Your task to perform on an android device: turn off wifi Image 0: 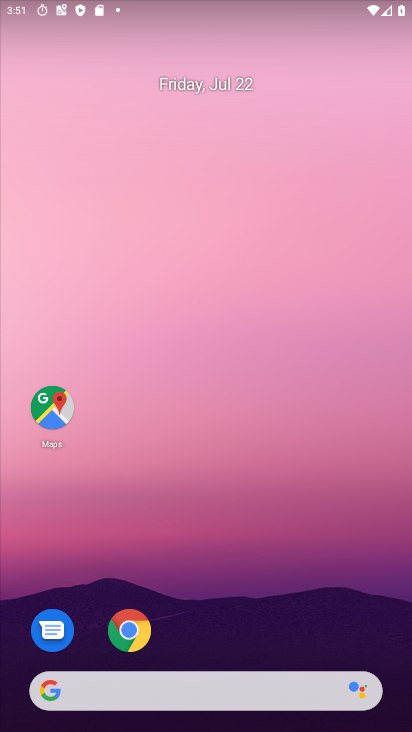
Step 0: drag from (387, 706) to (367, 94)
Your task to perform on an android device: turn off wifi Image 1: 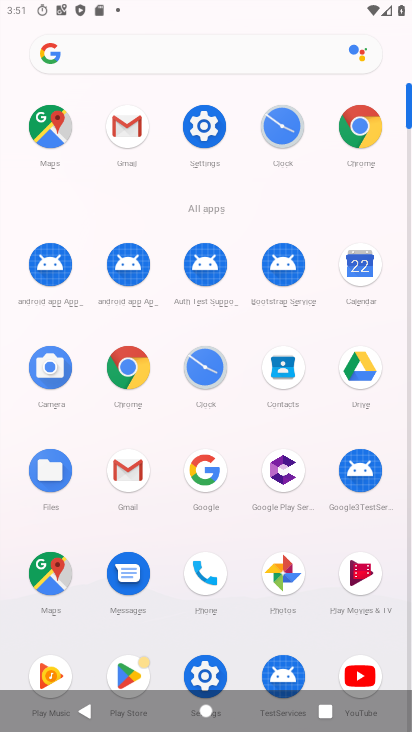
Step 1: click (206, 124)
Your task to perform on an android device: turn off wifi Image 2: 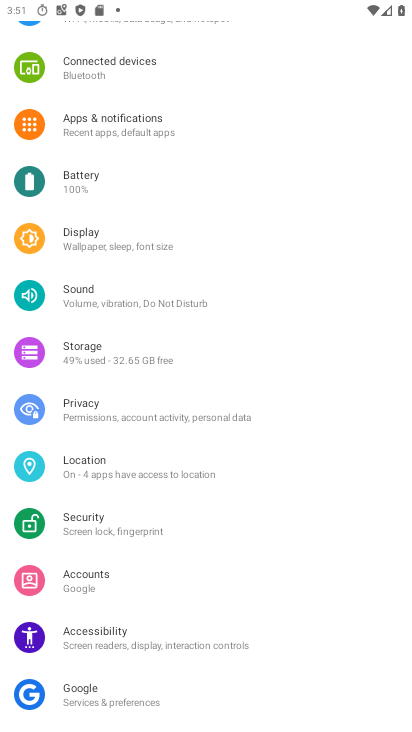
Step 2: drag from (256, 145) to (270, 481)
Your task to perform on an android device: turn off wifi Image 3: 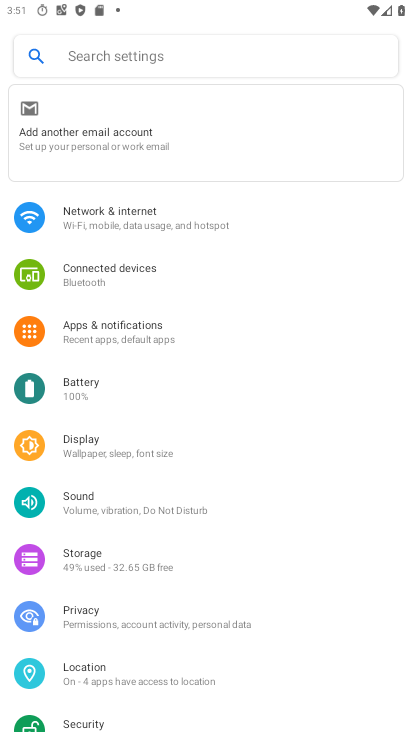
Step 3: click (109, 209)
Your task to perform on an android device: turn off wifi Image 4: 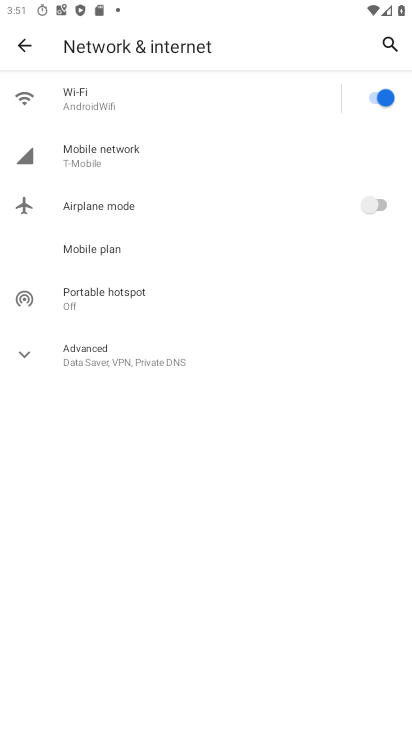
Step 4: click (372, 102)
Your task to perform on an android device: turn off wifi Image 5: 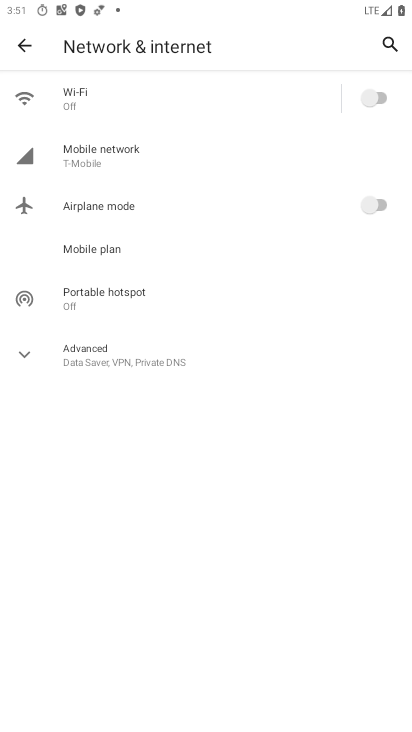
Step 5: task complete